Your task to perform on an android device: Toggle the flashlight Image 0: 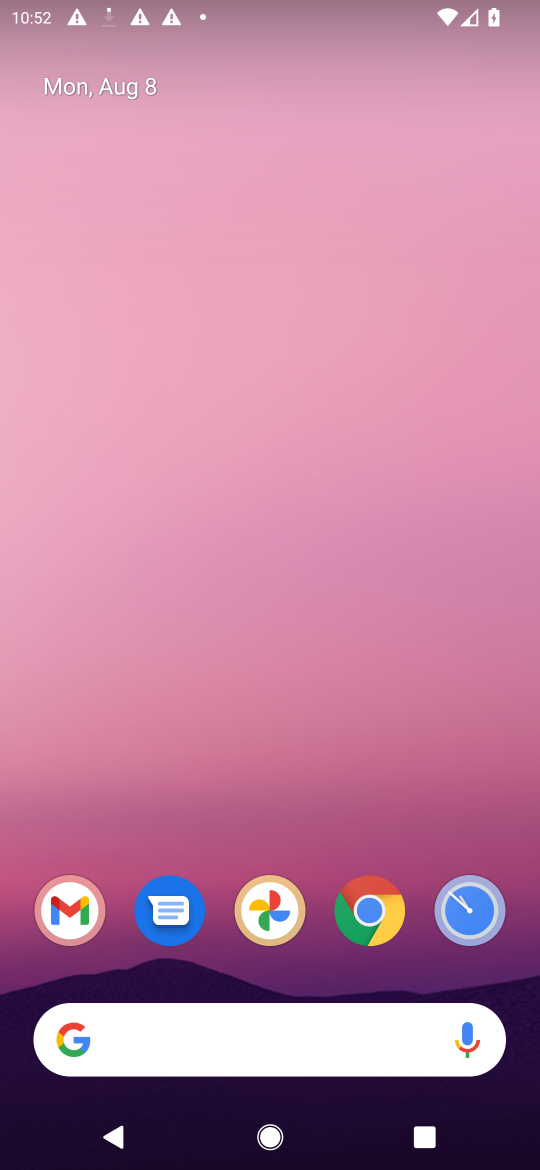
Step 0: drag from (224, 983) to (77, 95)
Your task to perform on an android device: Toggle the flashlight Image 1: 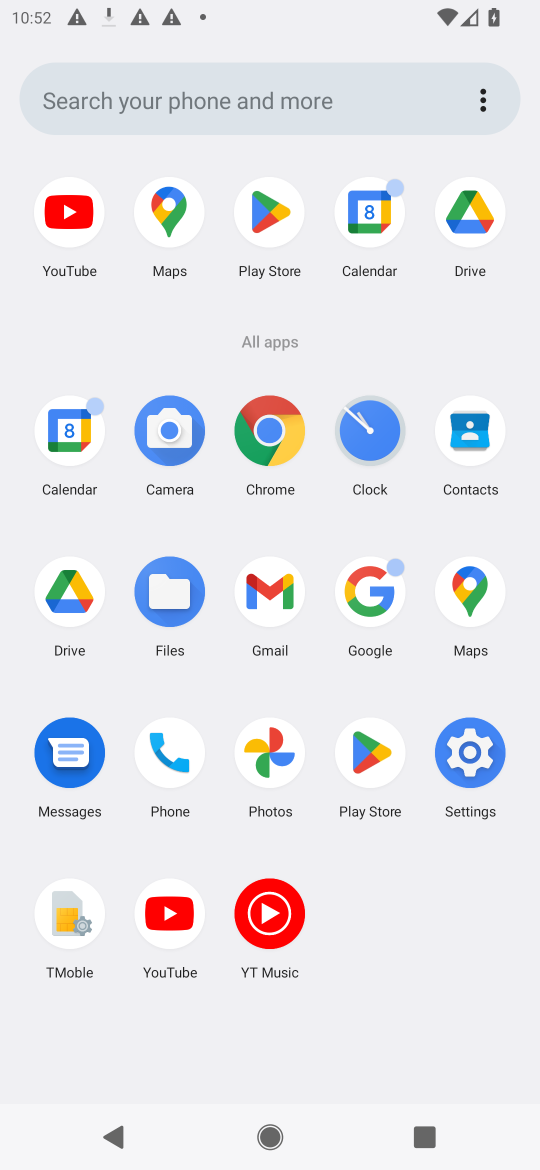
Step 1: click (476, 765)
Your task to perform on an android device: Toggle the flashlight Image 2: 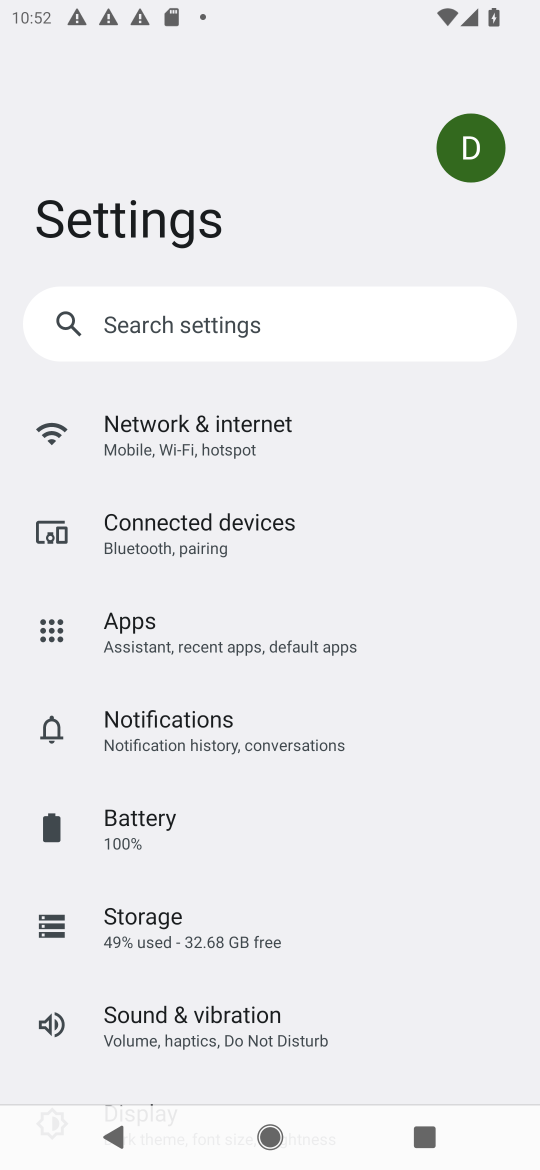
Step 2: task complete